Your task to perform on an android device: Open settings Image 0: 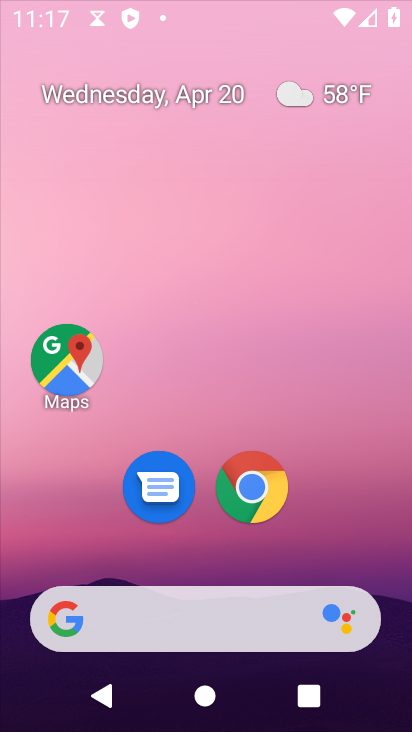
Step 0: click (271, 535)
Your task to perform on an android device: Open settings Image 1: 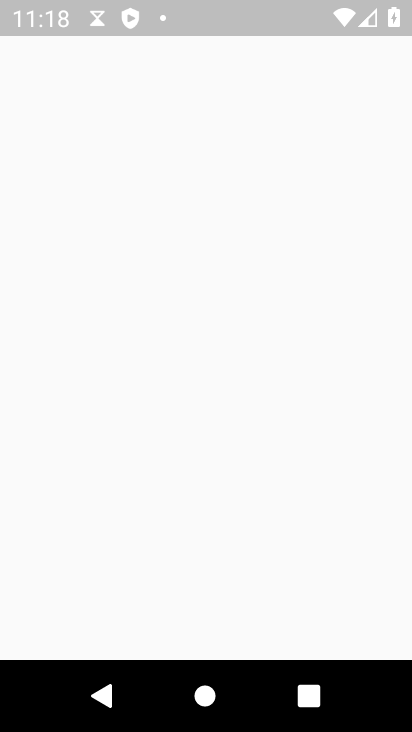
Step 1: press back button
Your task to perform on an android device: Open settings Image 2: 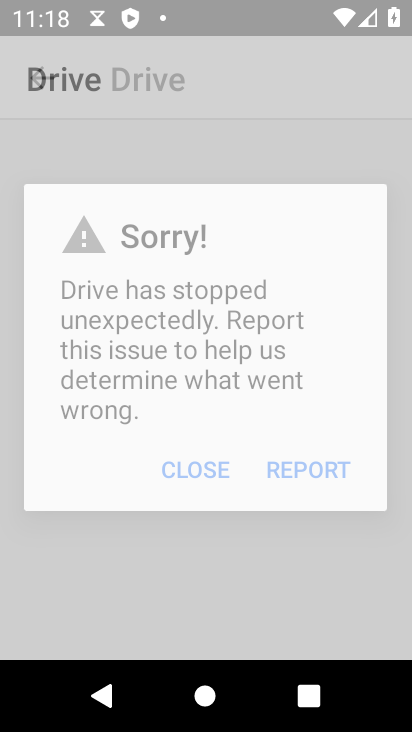
Step 2: press back button
Your task to perform on an android device: Open settings Image 3: 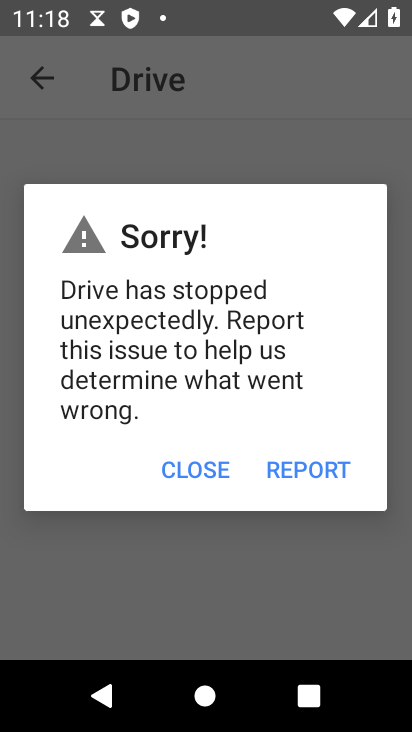
Step 3: press home button
Your task to perform on an android device: Open settings Image 4: 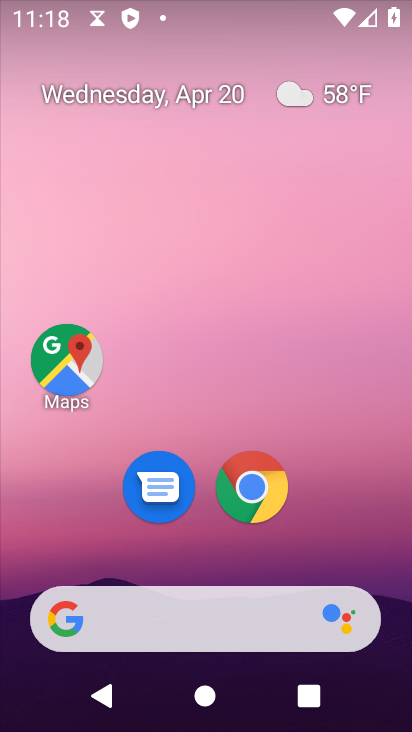
Step 4: drag from (358, 498) to (243, 0)
Your task to perform on an android device: Open settings Image 5: 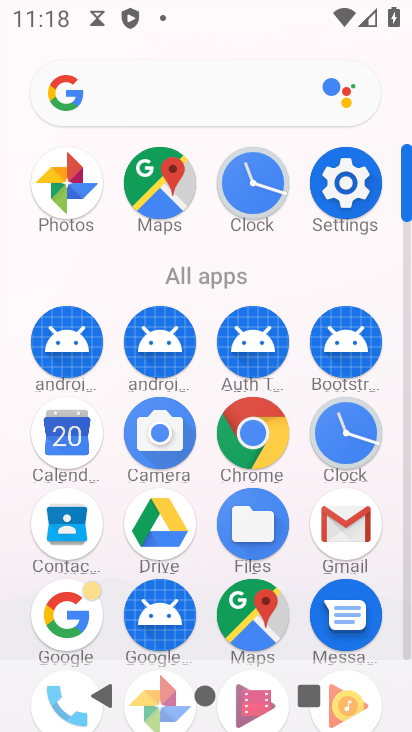
Step 5: click (342, 181)
Your task to perform on an android device: Open settings Image 6: 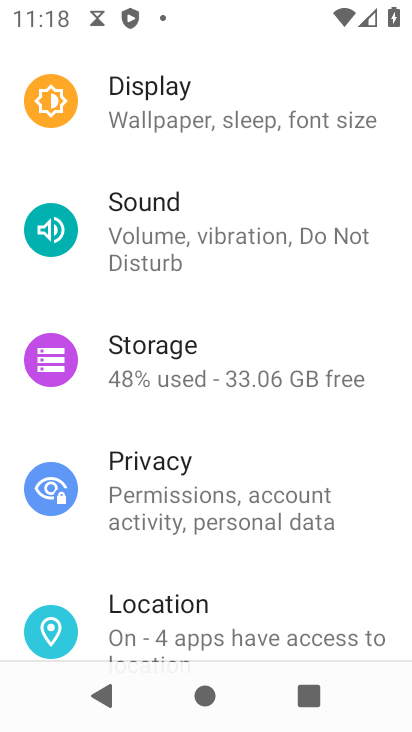
Step 6: task complete